Your task to perform on an android device: open app "HBO Max: Stream TV & Movies" (install if not already installed) Image 0: 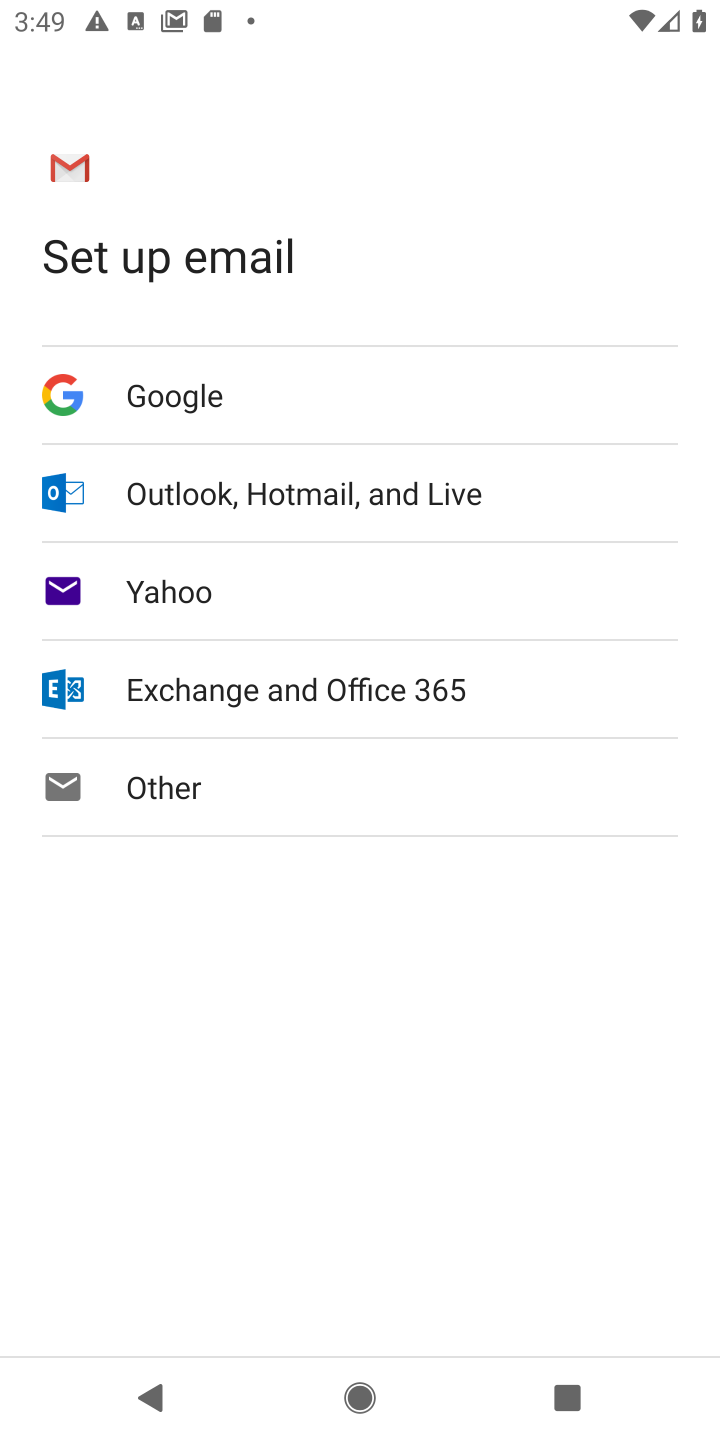
Step 0: press home button
Your task to perform on an android device: open app "HBO Max: Stream TV & Movies" (install if not already installed) Image 1: 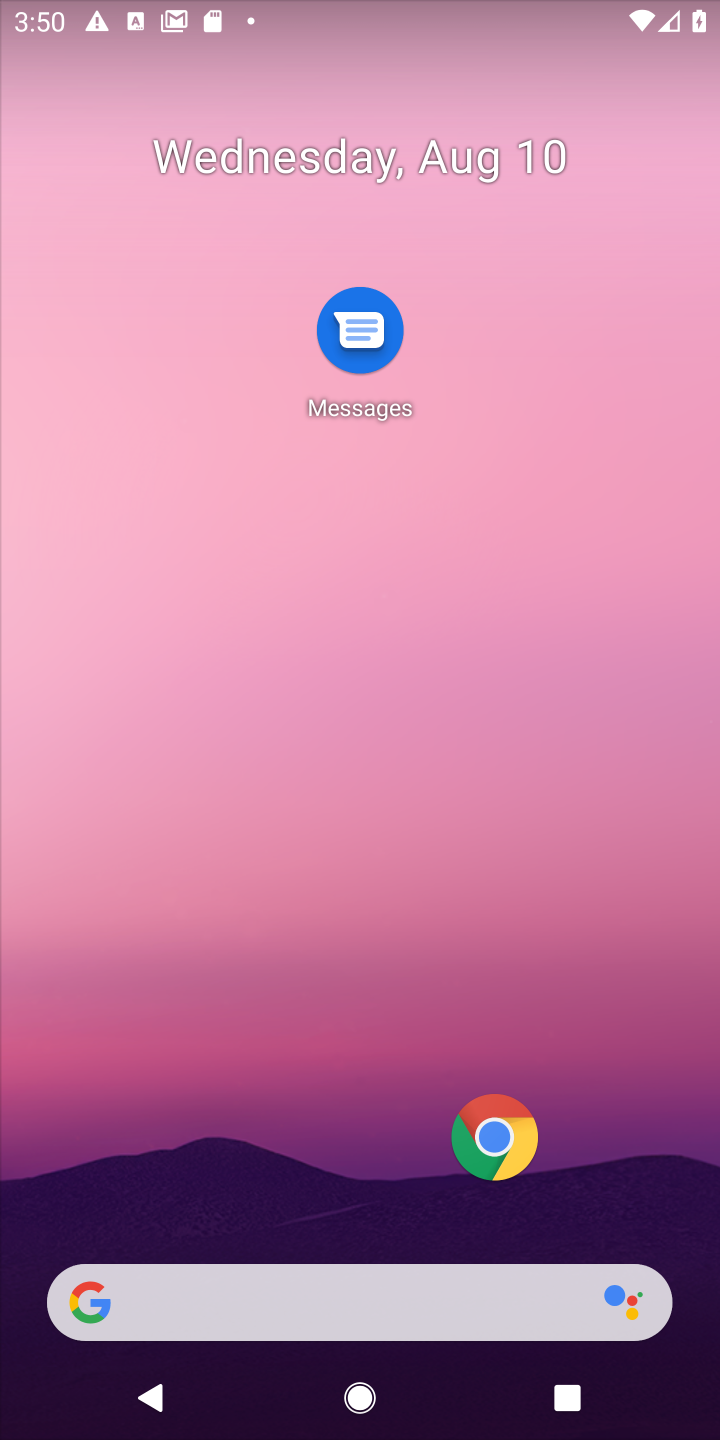
Step 1: drag from (278, 1169) to (265, 75)
Your task to perform on an android device: open app "HBO Max: Stream TV & Movies" (install if not already installed) Image 2: 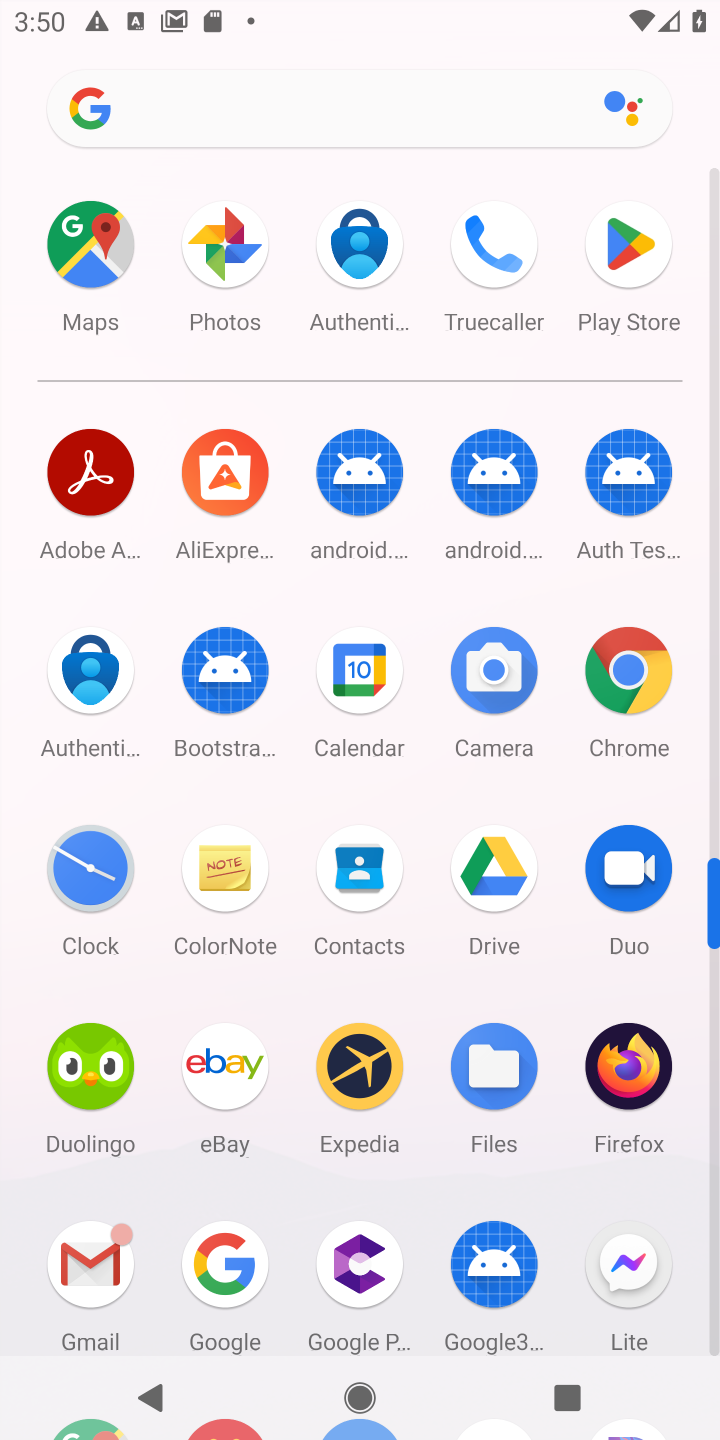
Step 2: click (638, 262)
Your task to perform on an android device: open app "HBO Max: Stream TV & Movies" (install if not already installed) Image 3: 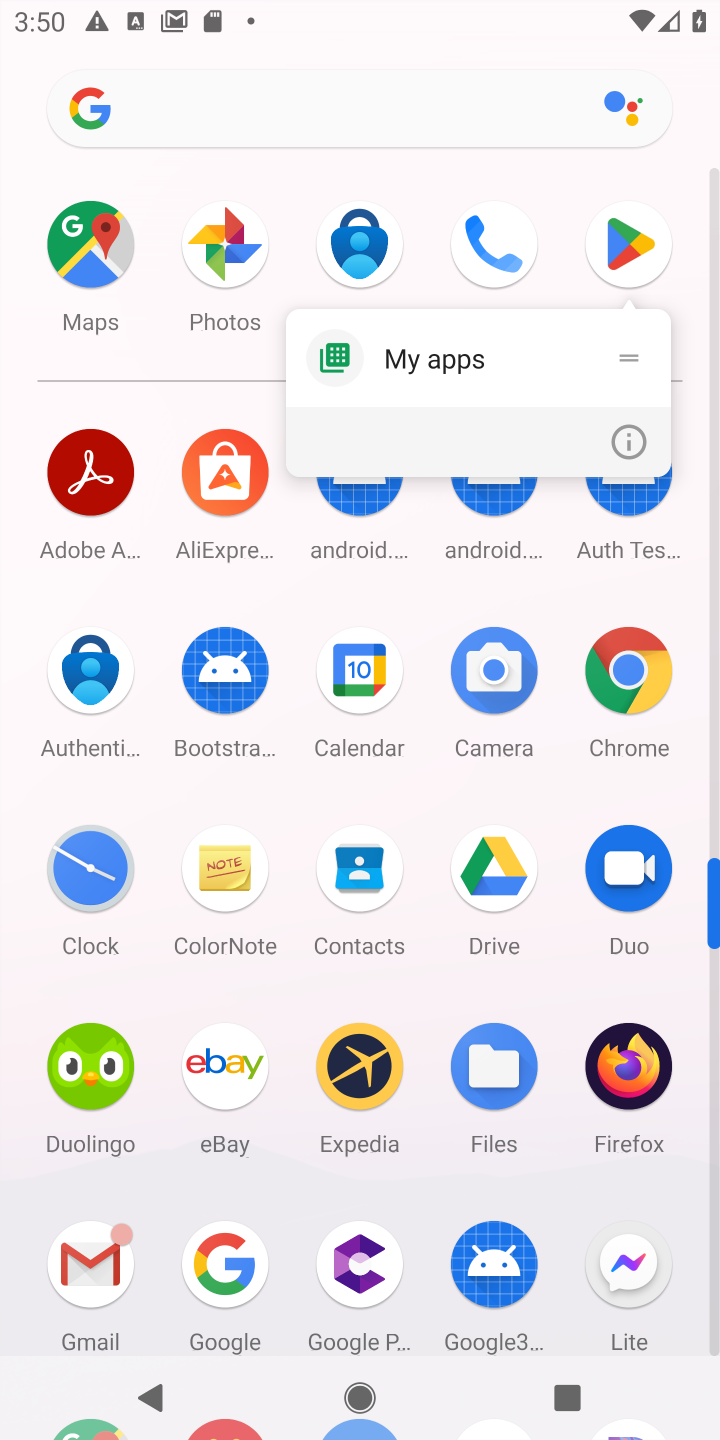
Step 3: click (638, 262)
Your task to perform on an android device: open app "HBO Max: Stream TV & Movies" (install if not already installed) Image 4: 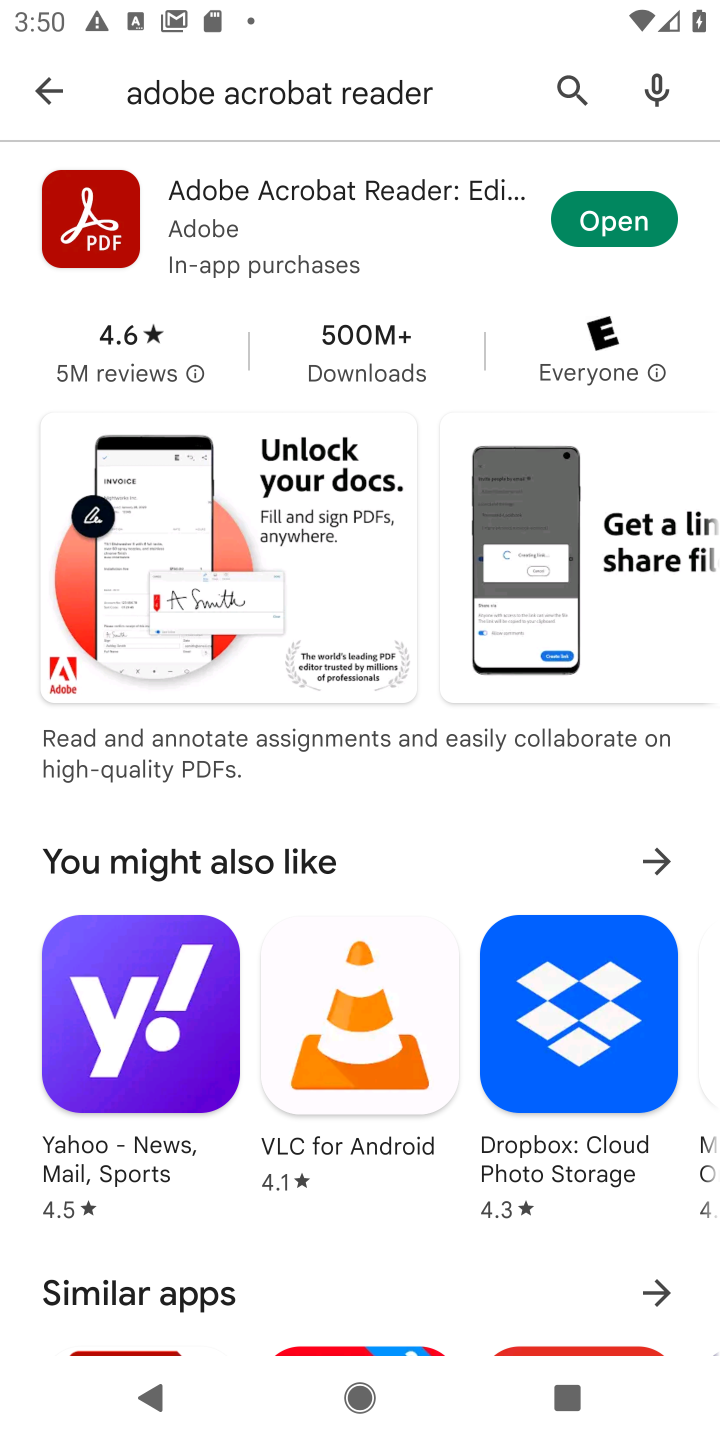
Step 4: click (354, 83)
Your task to perform on an android device: open app "HBO Max: Stream TV & Movies" (install if not already installed) Image 5: 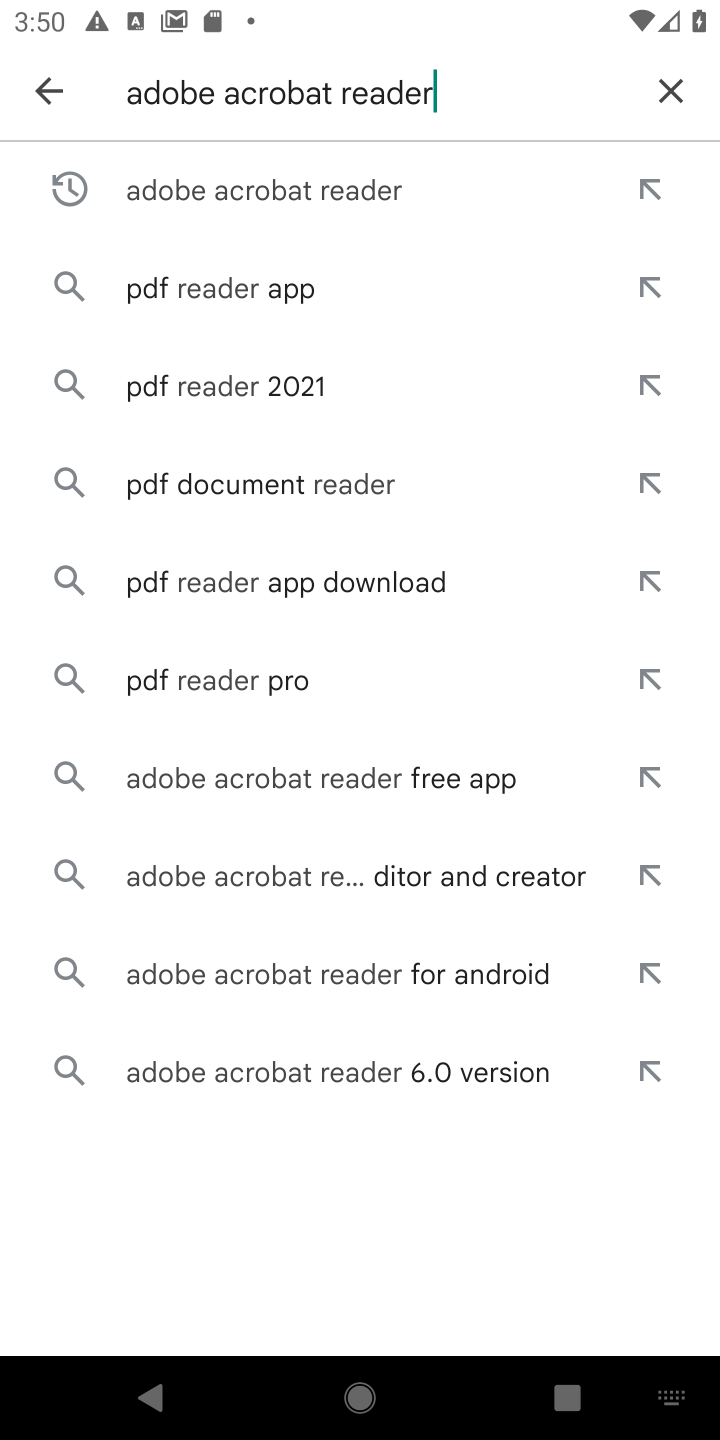
Step 5: click (665, 94)
Your task to perform on an android device: open app "HBO Max: Stream TV & Movies" (install if not already installed) Image 6: 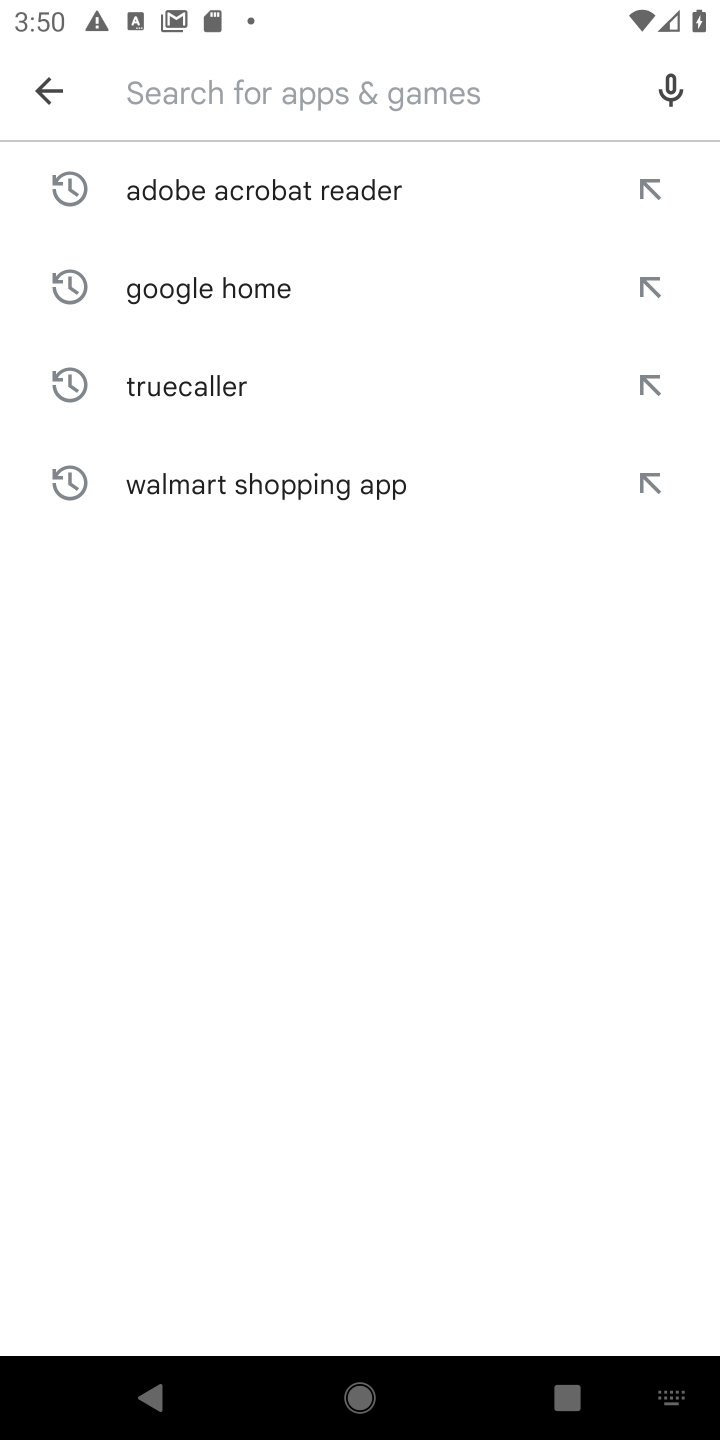
Step 6: type "hbo max"
Your task to perform on an android device: open app "HBO Max: Stream TV & Movies" (install if not already installed) Image 7: 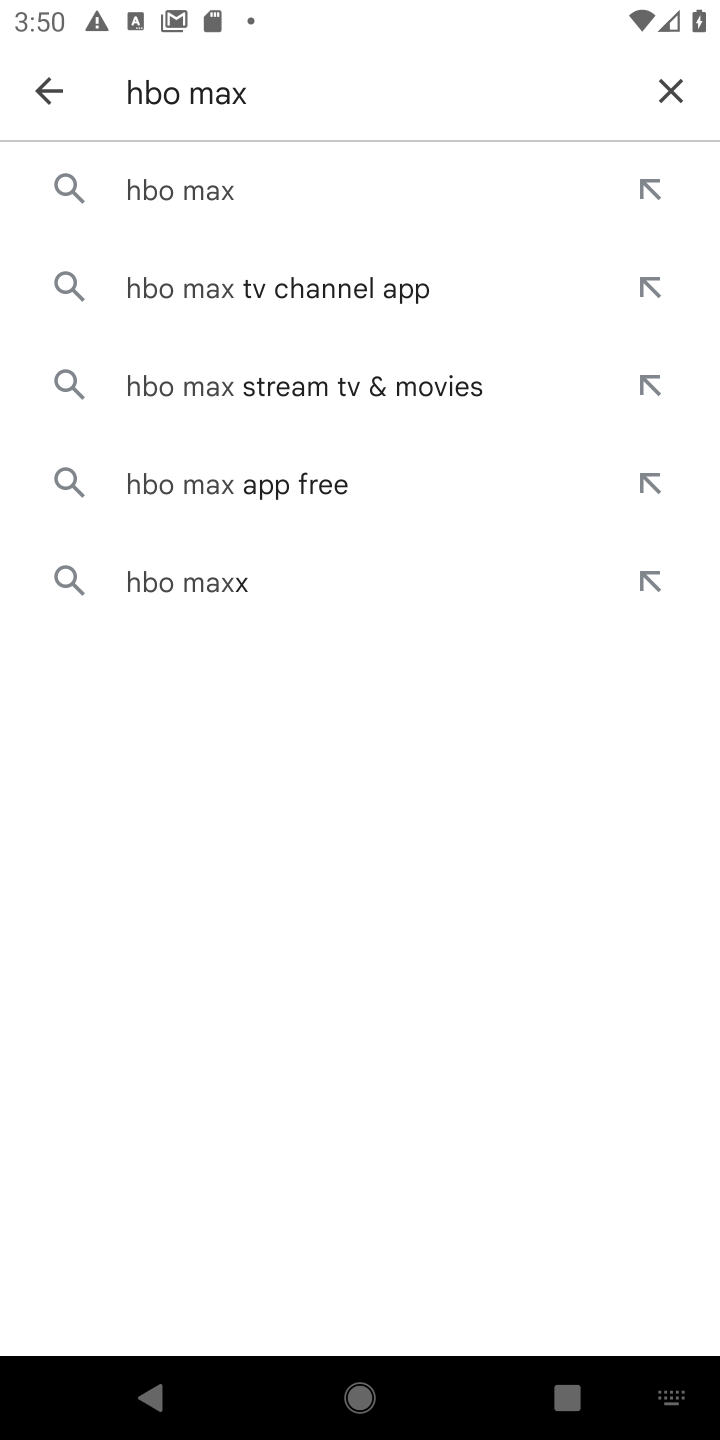
Step 7: click (198, 202)
Your task to perform on an android device: open app "HBO Max: Stream TV & Movies" (install if not already installed) Image 8: 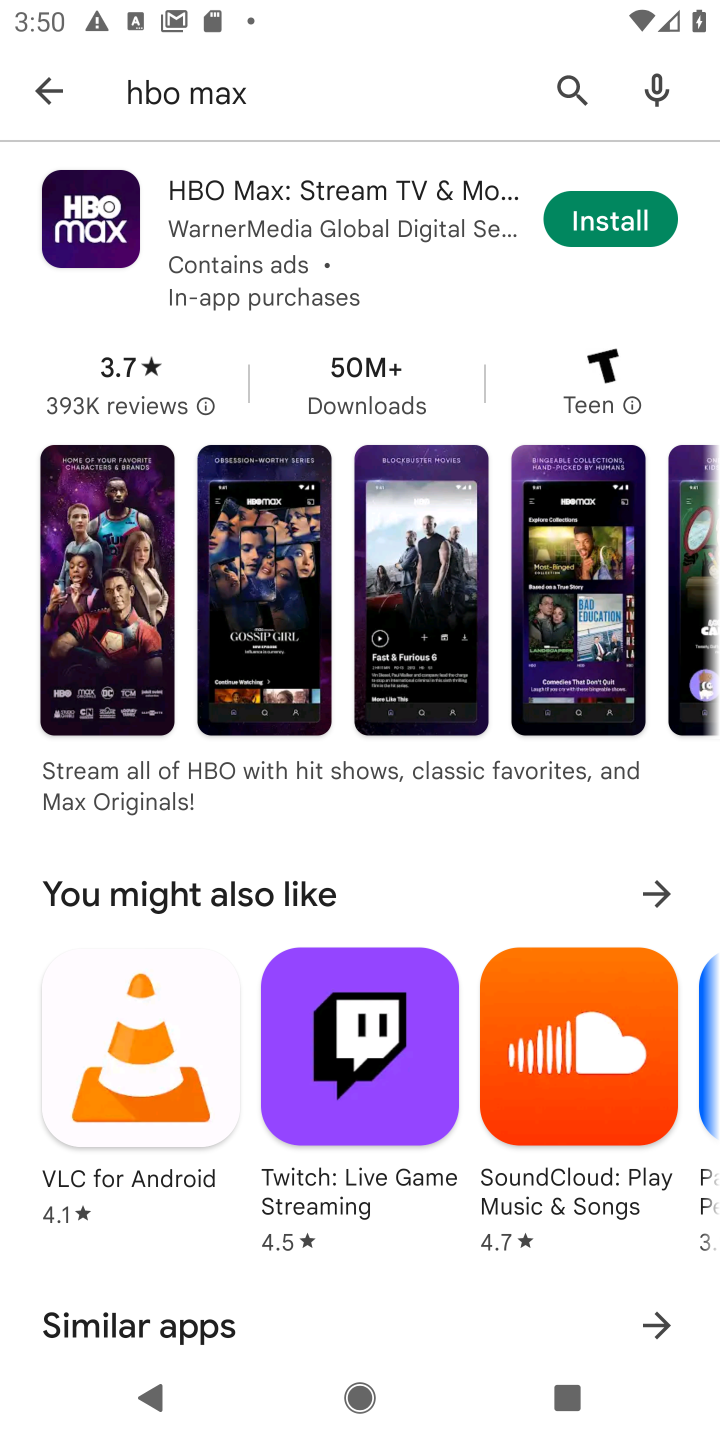
Step 8: click (638, 226)
Your task to perform on an android device: open app "HBO Max: Stream TV & Movies" (install if not already installed) Image 9: 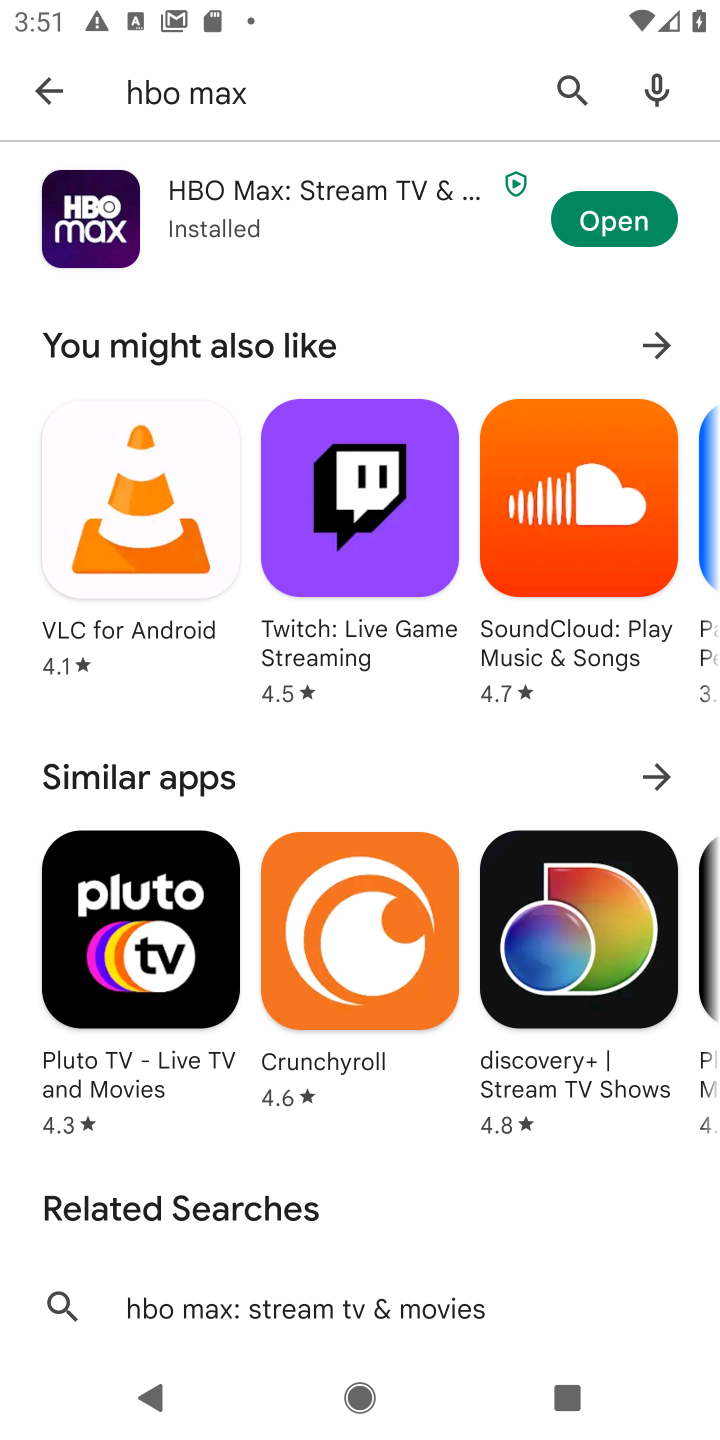
Step 9: click (587, 223)
Your task to perform on an android device: open app "HBO Max: Stream TV & Movies" (install if not already installed) Image 10: 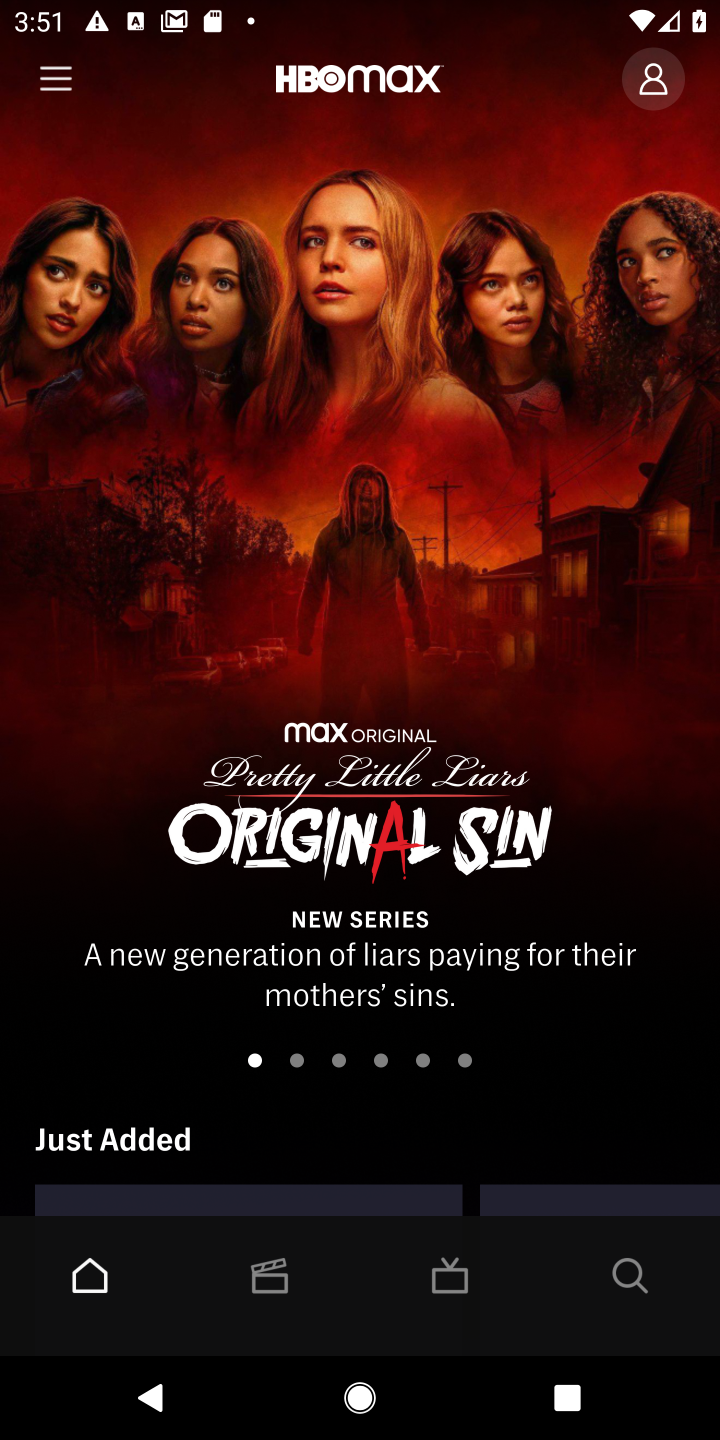
Step 10: task complete